Your task to perform on an android device: change notifications settings Image 0: 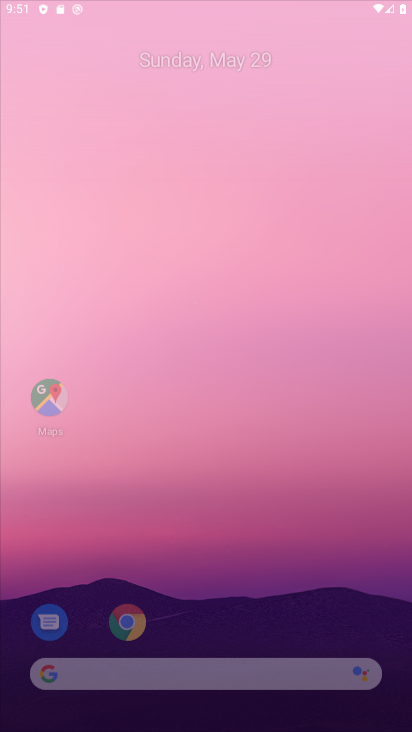
Step 0: click (252, 699)
Your task to perform on an android device: change notifications settings Image 1: 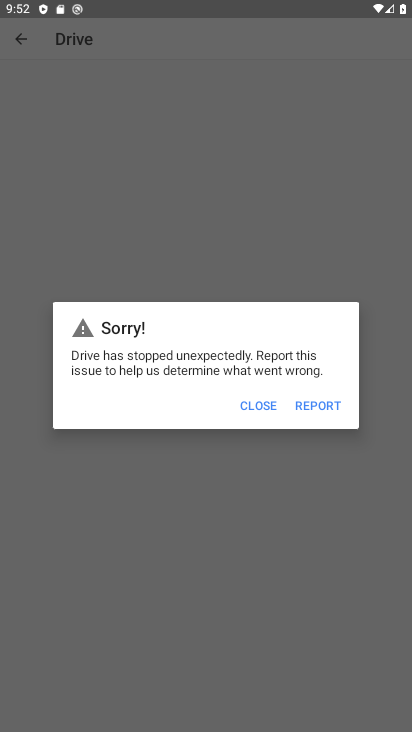
Step 1: press home button
Your task to perform on an android device: change notifications settings Image 2: 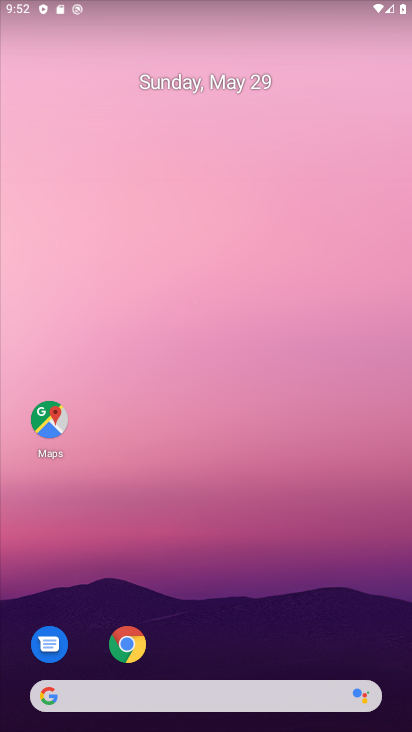
Step 2: drag from (118, 595) to (142, 46)
Your task to perform on an android device: change notifications settings Image 3: 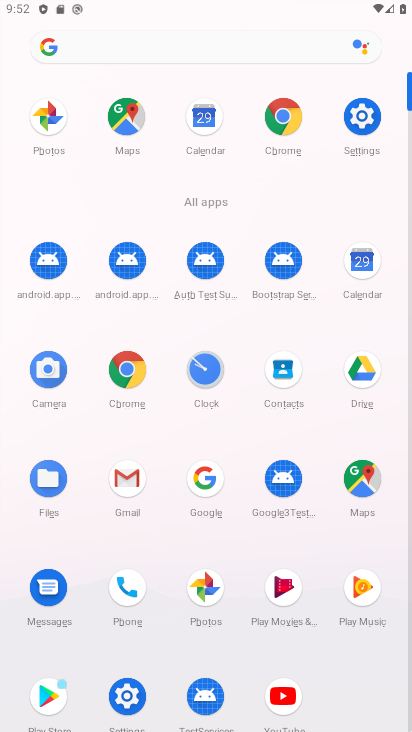
Step 3: click (375, 120)
Your task to perform on an android device: change notifications settings Image 4: 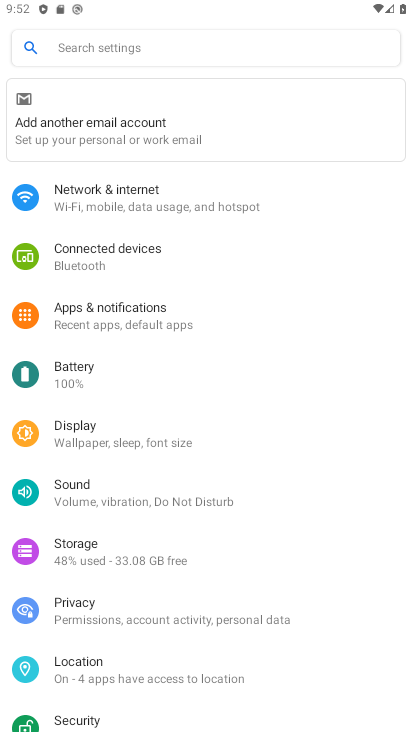
Step 4: click (170, 317)
Your task to perform on an android device: change notifications settings Image 5: 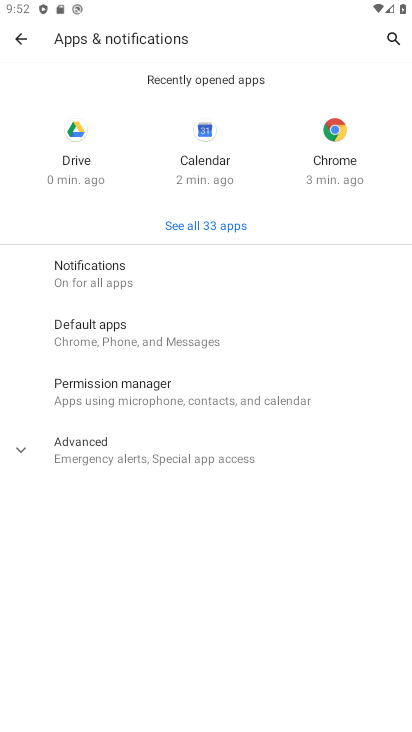
Step 5: click (91, 278)
Your task to perform on an android device: change notifications settings Image 6: 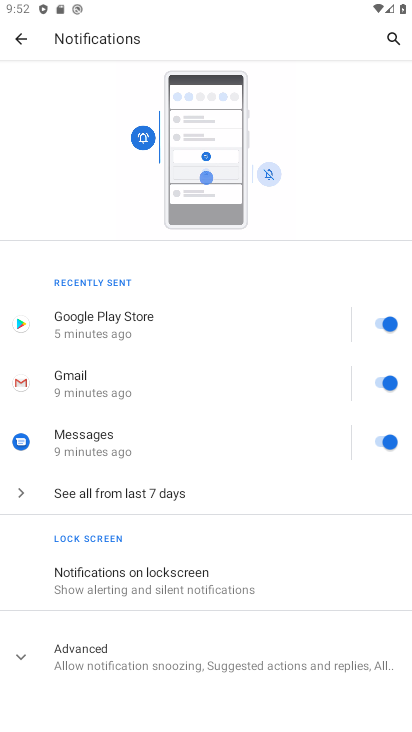
Step 6: click (385, 324)
Your task to perform on an android device: change notifications settings Image 7: 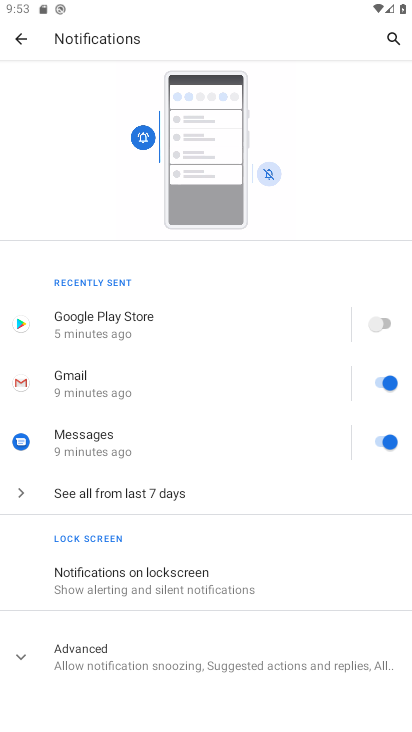
Step 7: task complete